Your task to perform on an android device: turn on bluetooth scan Image 0: 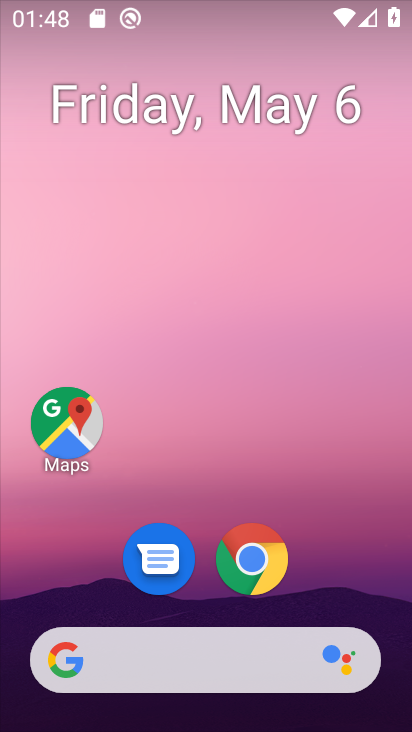
Step 0: drag from (304, 618) to (296, 7)
Your task to perform on an android device: turn on bluetooth scan Image 1: 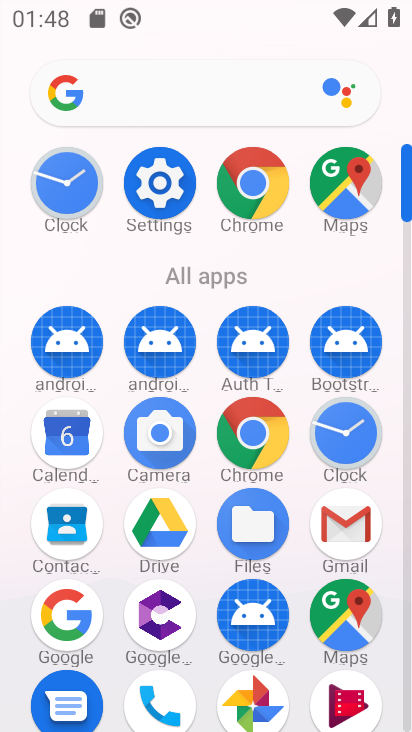
Step 1: click (166, 189)
Your task to perform on an android device: turn on bluetooth scan Image 2: 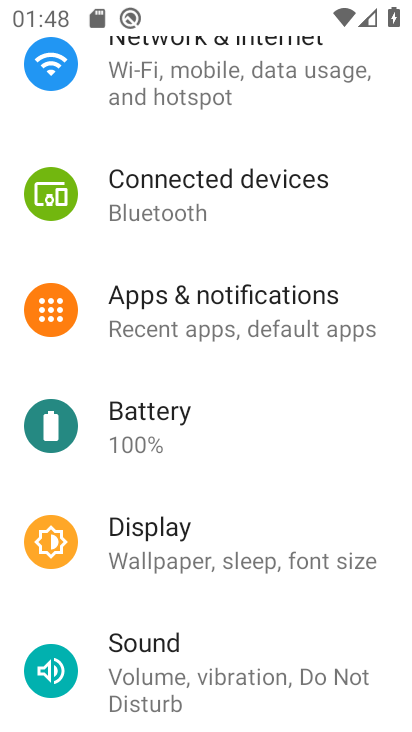
Step 2: drag from (186, 176) to (215, 570)
Your task to perform on an android device: turn on bluetooth scan Image 3: 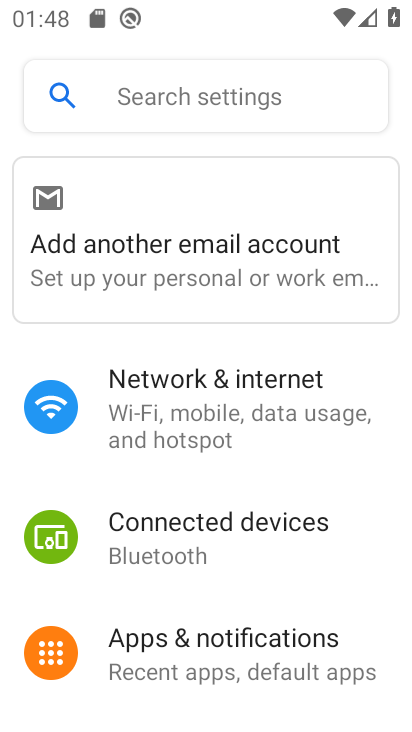
Step 3: drag from (217, 588) to (191, 31)
Your task to perform on an android device: turn on bluetooth scan Image 4: 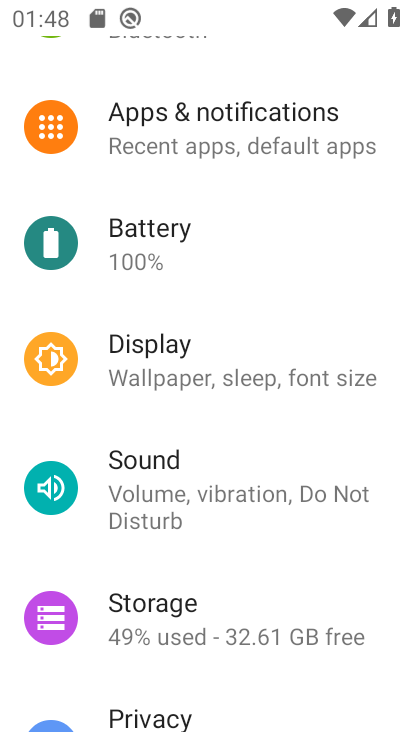
Step 4: drag from (205, 633) to (244, 183)
Your task to perform on an android device: turn on bluetooth scan Image 5: 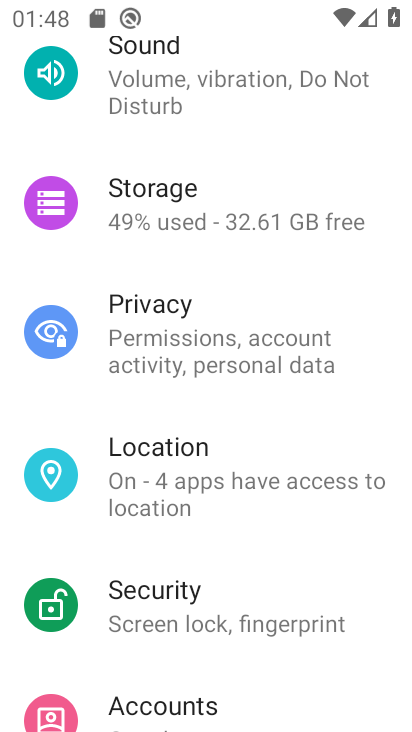
Step 5: click (186, 476)
Your task to perform on an android device: turn on bluetooth scan Image 6: 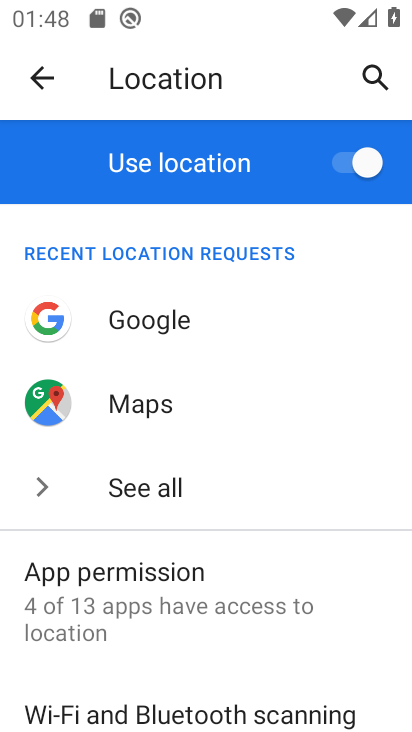
Step 6: drag from (301, 688) to (318, 193)
Your task to perform on an android device: turn on bluetooth scan Image 7: 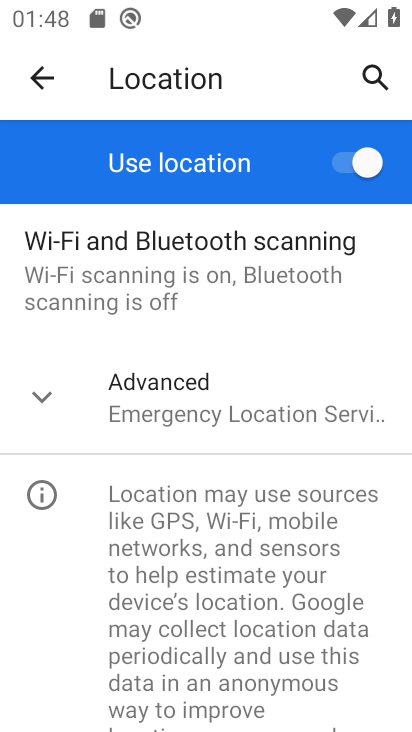
Step 7: click (256, 250)
Your task to perform on an android device: turn on bluetooth scan Image 8: 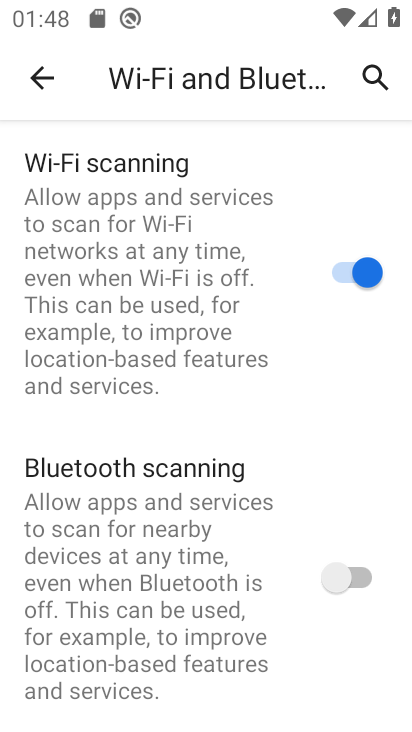
Step 8: click (355, 578)
Your task to perform on an android device: turn on bluetooth scan Image 9: 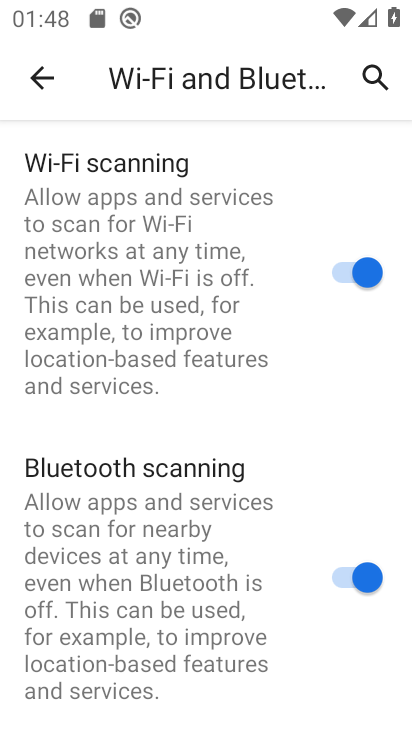
Step 9: task complete